Your task to perform on an android device: turn on the 24-hour format for clock Image 0: 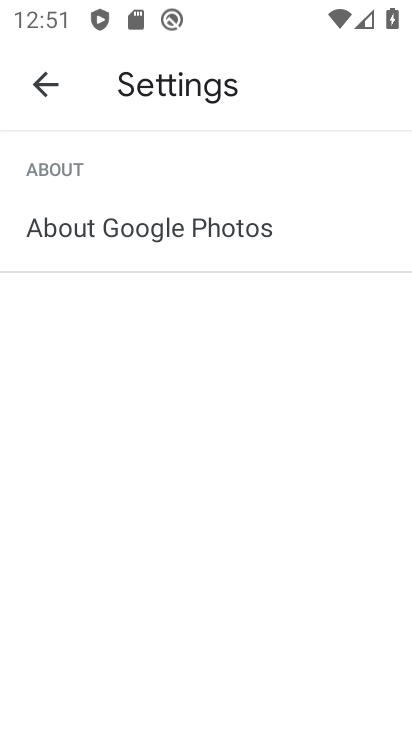
Step 0: press home button
Your task to perform on an android device: turn on the 24-hour format for clock Image 1: 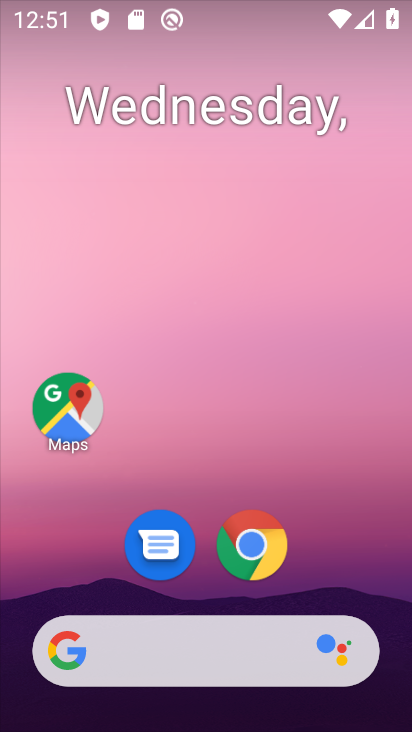
Step 1: drag from (308, 467) to (269, 143)
Your task to perform on an android device: turn on the 24-hour format for clock Image 2: 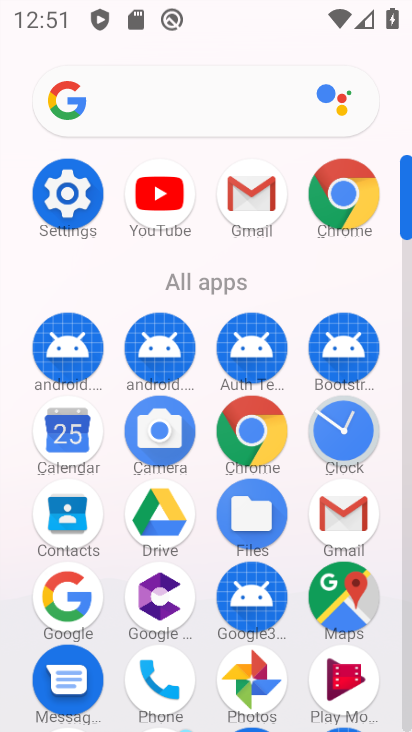
Step 2: click (333, 422)
Your task to perform on an android device: turn on the 24-hour format for clock Image 3: 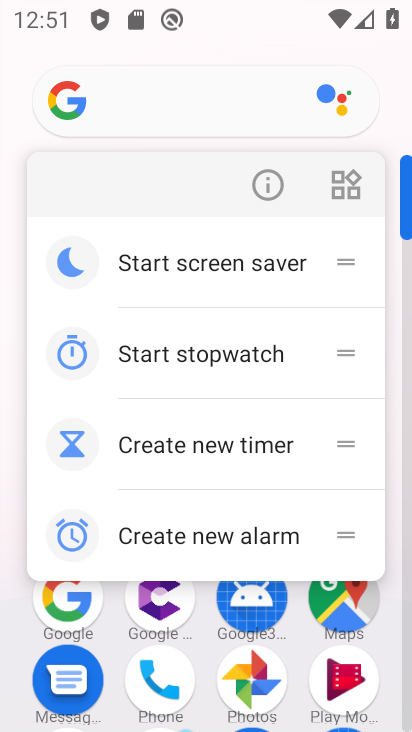
Step 3: click (402, 387)
Your task to perform on an android device: turn on the 24-hour format for clock Image 4: 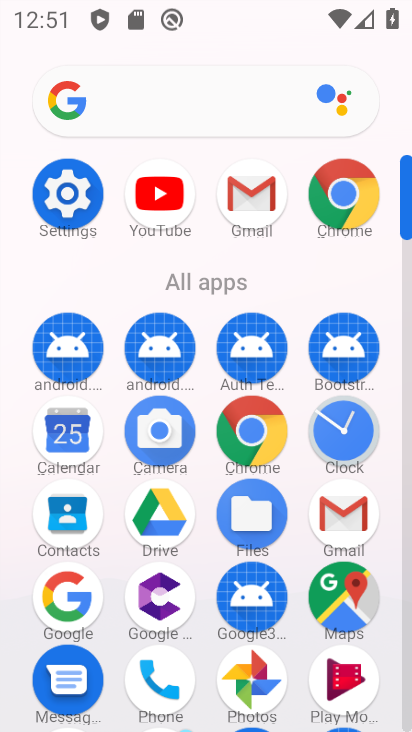
Step 4: click (354, 426)
Your task to perform on an android device: turn on the 24-hour format for clock Image 5: 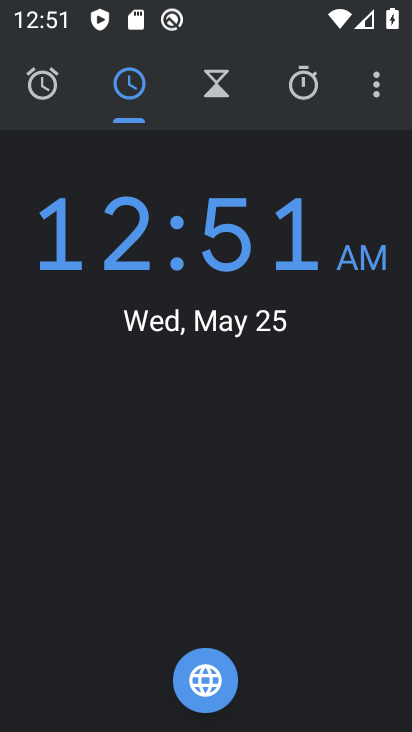
Step 5: click (373, 81)
Your task to perform on an android device: turn on the 24-hour format for clock Image 6: 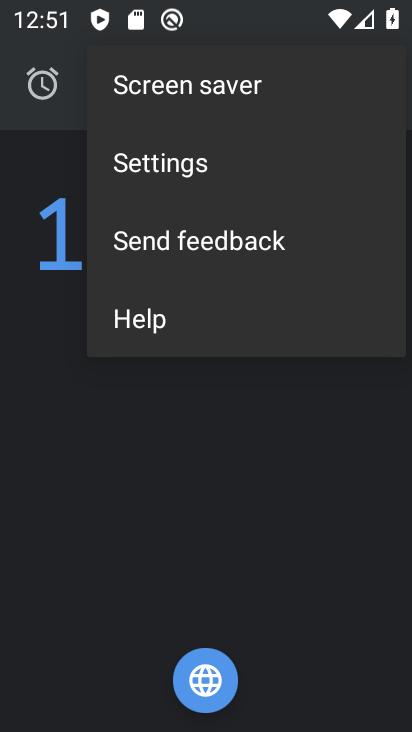
Step 6: click (199, 176)
Your task to perform on an android device: turn on the 24-hour format for clock Image 7: 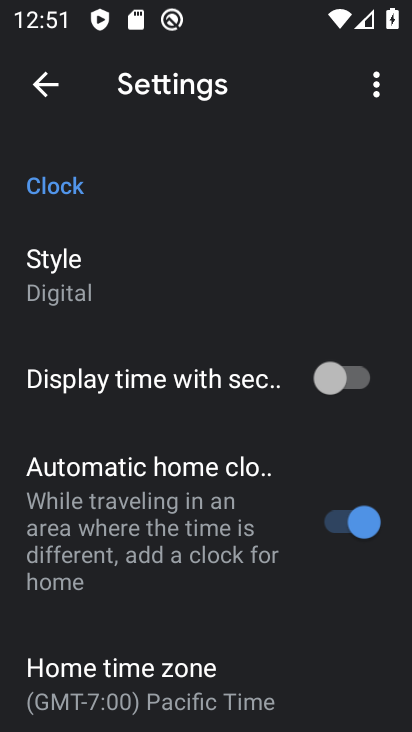
Step 7: drag from (128, 549) to (254, 141)
Your task to perform on an android device: turn on the 24-hour format for clock Image 8: 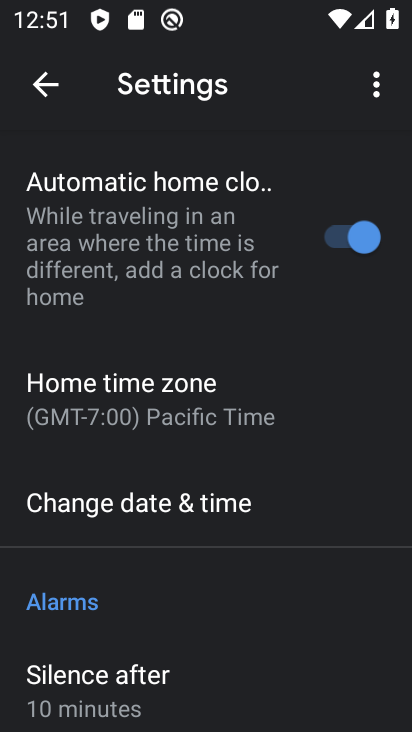
Step 8: click (148, 499)
Your task to perform on an android device: turn on the 24-hour format for clock Image 9: 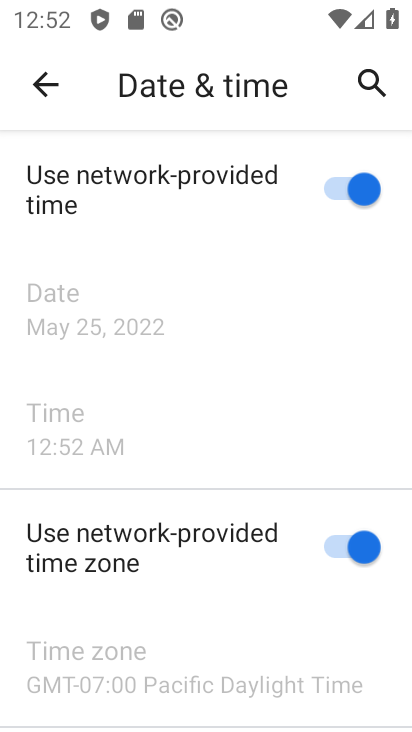
Step 9: drag from (175, 506) to (283, 140)
Your task to perform on an android device: turn on the 24-hour format for clock Image 10: 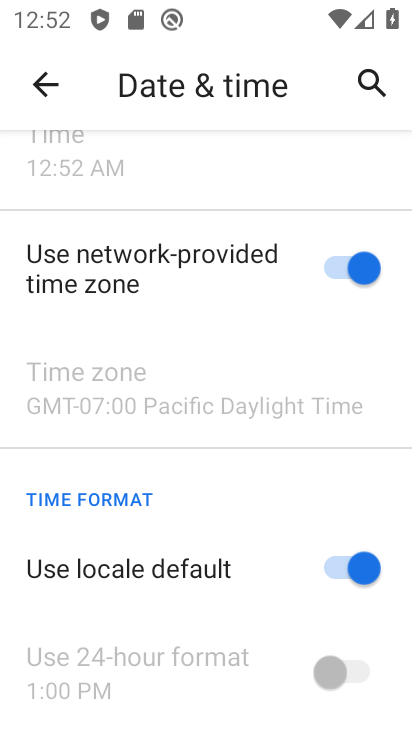
Step 10: click (362, 553)
Your task to perform on an android device: turn on the 24-hour format for clock Image 11: 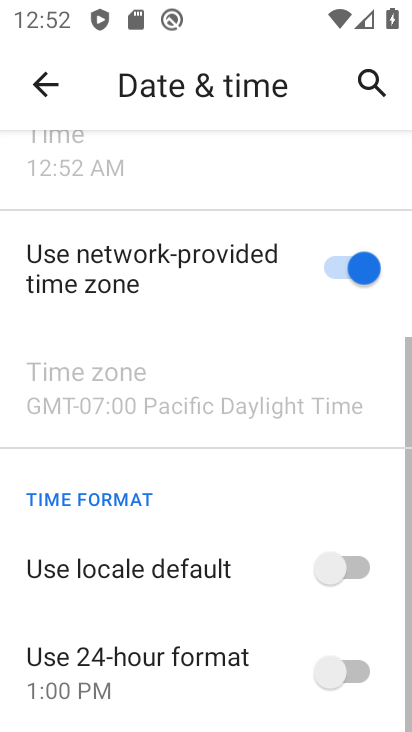
Step 11: click (354, 668)
Your task to perform on an android device: turn on the 24-hour format for clock Image 12: 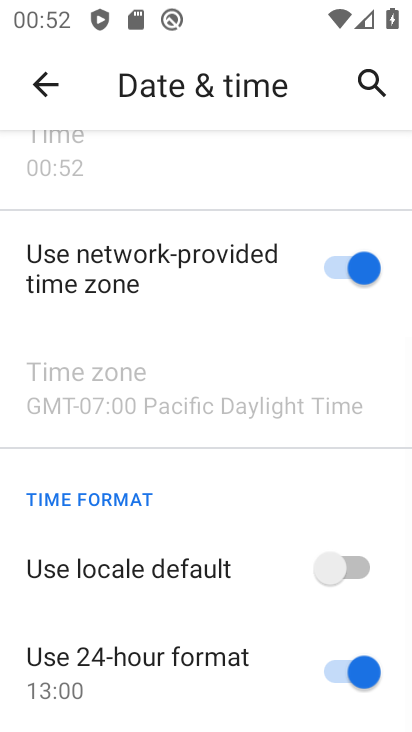
Step 12: task complete